Your task to perform on an android device: open device folders in google photos Image 0: 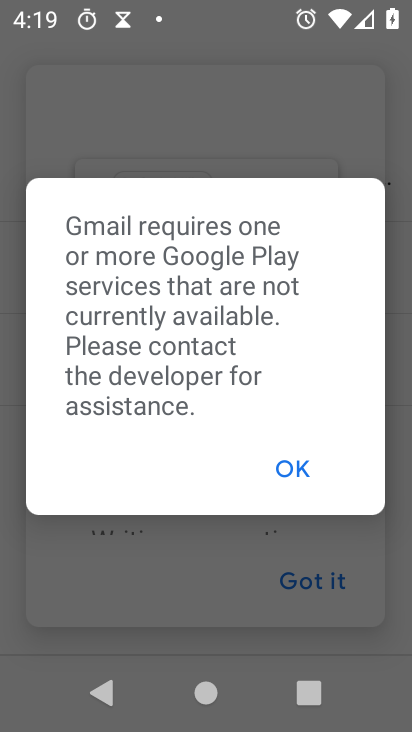
Step 0: press home button
Your task to perform on an android device: open device folders in google photos Image 1: 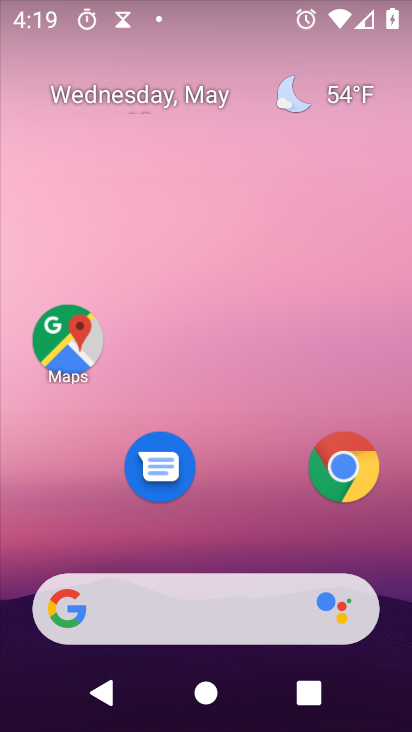
Step 1: drag from (298, 537) to (211, 99)
Your task to perform on an android device: open device folders in google photos Image 2: 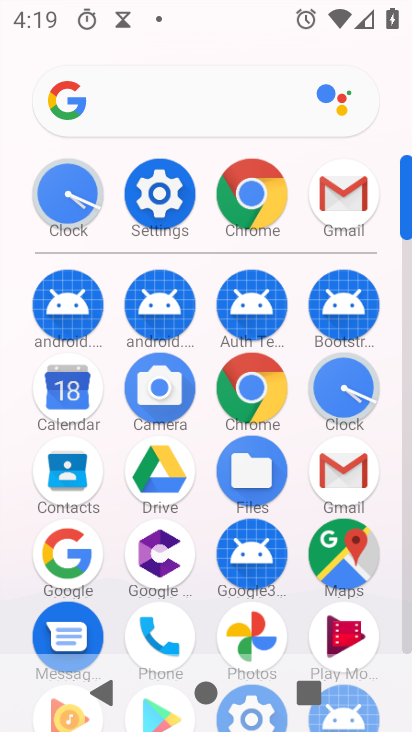
Step 2: click (270, 630)
Your task to perform on an android device: open device folders in google photos Image 3: 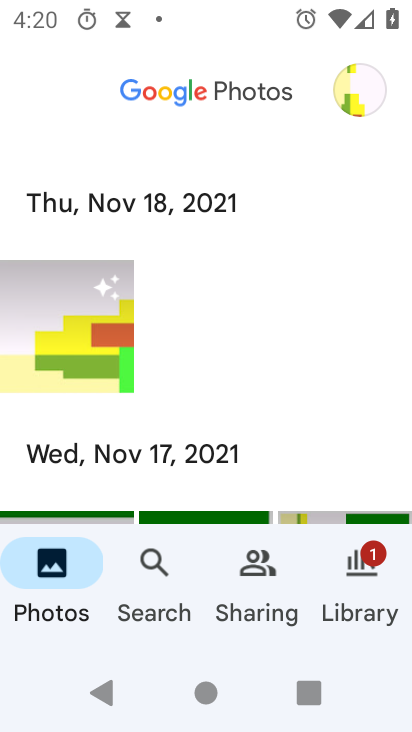
Step 3: click (352, 96)
Your task to perform on an android device: open device folders in google photos Image 4: 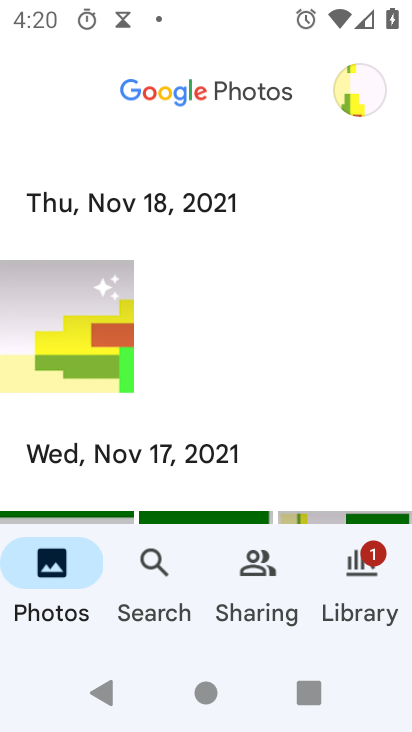
Step 4: click (352, 96)
Your task to perform on an android device: open device folders in google photos Image 5: 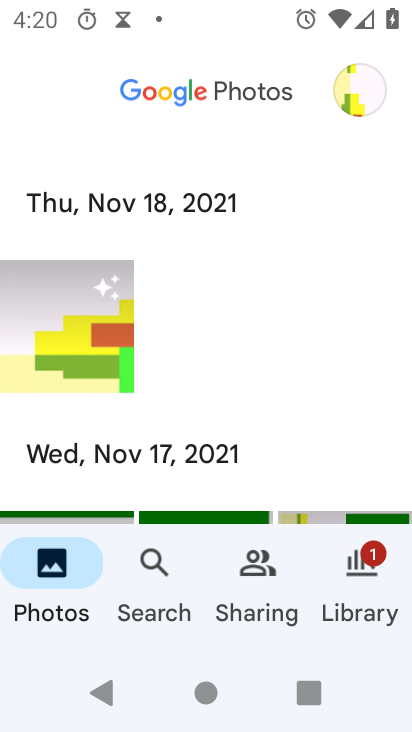
Step 5: click (352, 96)
Your task to perform on an android device: open device folders in google photos Image 6: 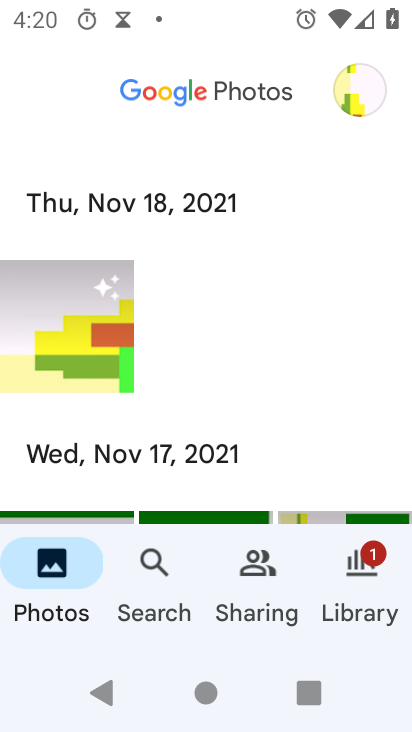
Step 6: click (352, 96)
Your task to perform on an android device: open device folders in google photos Image 7: 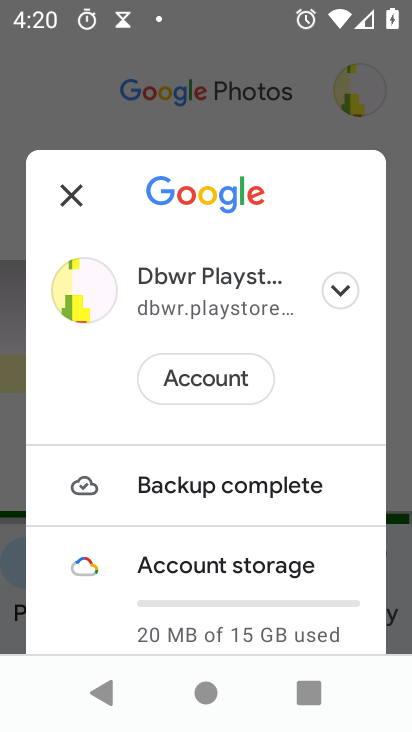
Step 7: task complete